Your task to perform on an android device: Open Chrome and go to settings Image 0: 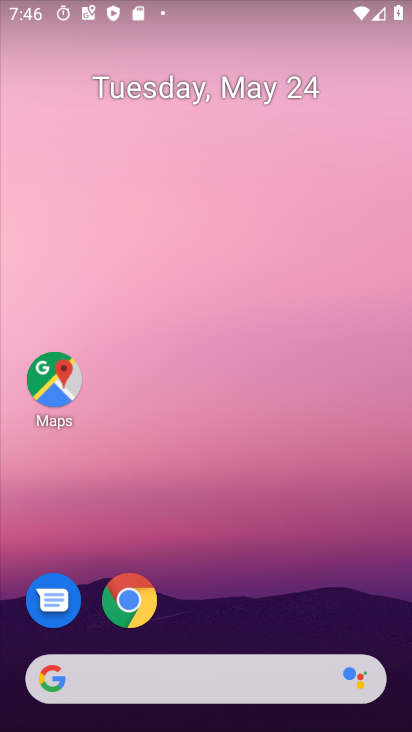
Step 0: click (115, 593)
Your task to perform on an android device: Open Chrome and go to settings Image 1: 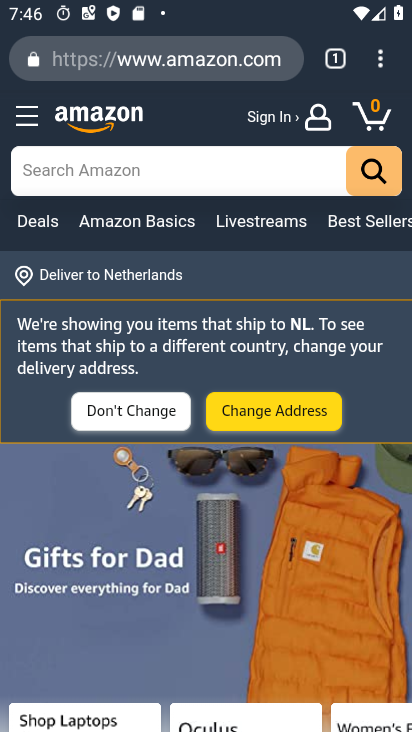
Step 1: task complete